Your task to perform on an android device: check storage Image 0: 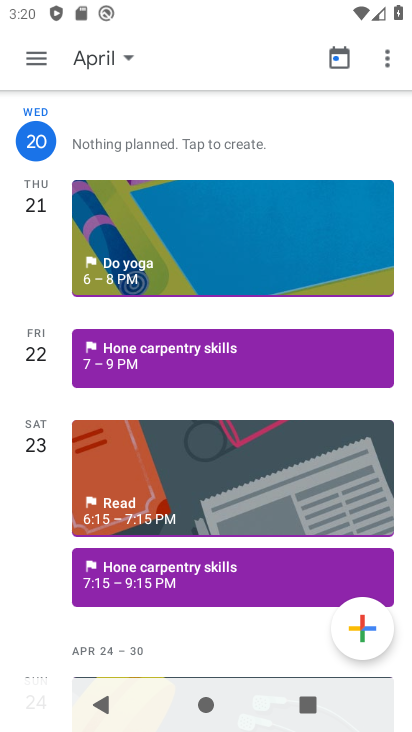
Step 0: press back button
Your task to perform on an android device: check storage Image 1: 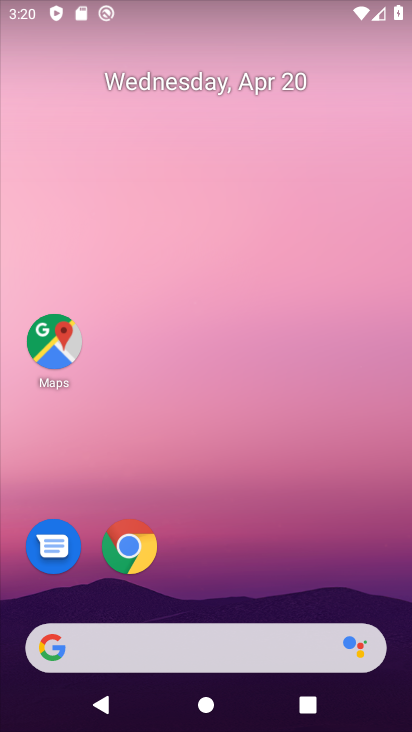
Step 1: drag from (223, 547) to (310, 98)
Your task to perform on an android device: check storage Image 2: 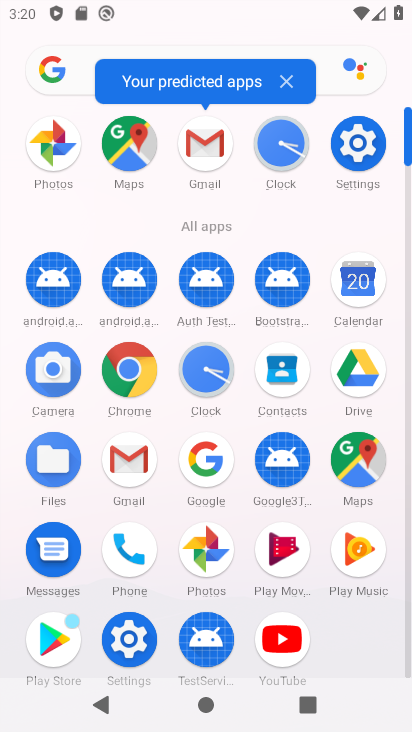
Step 2: click (363, 144)
Your task to perform on an android device: check storage Image 3: 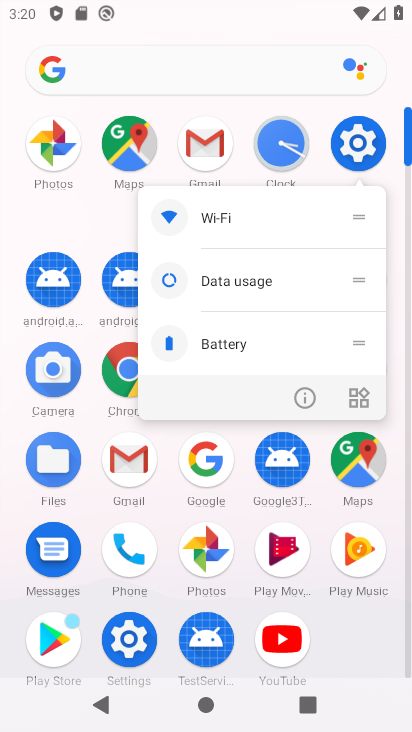
Step 3: click (361, 151)
Your task to perform on an android device: check storage Image 4: 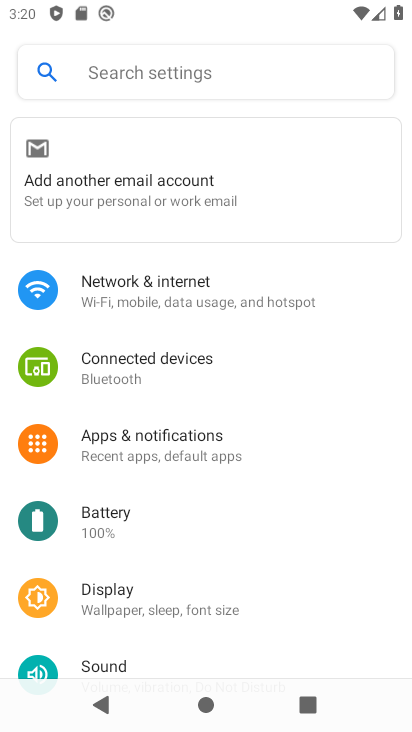
Step 4: drag from (159, 583) to (278, 296)
Your task to perform on an android device: check storage Image 5: 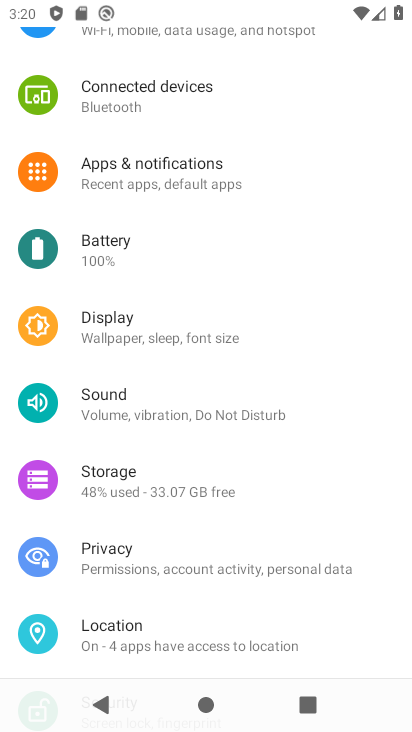
Step 5: click (203, 488)
Your task to perform on an android device: check storage Image 6: 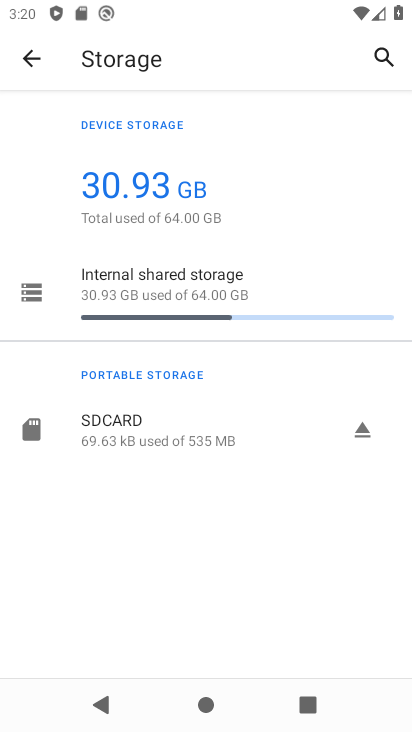
Step 6: click (224, 300)
Your task to perform on an android device: check storage Image 7: 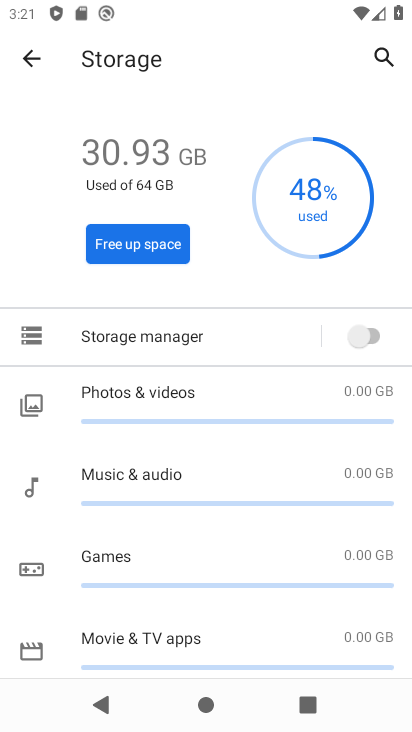
Step 7: task complete